Your task to perform on an android device: What is the average speed of a car? Image 0: 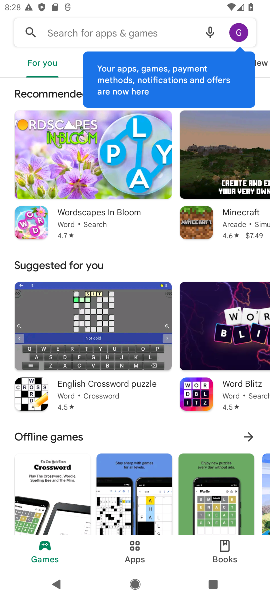
Step 0: press home button
Your task to perform on an android device: What is the average speed of a car? Image 1: 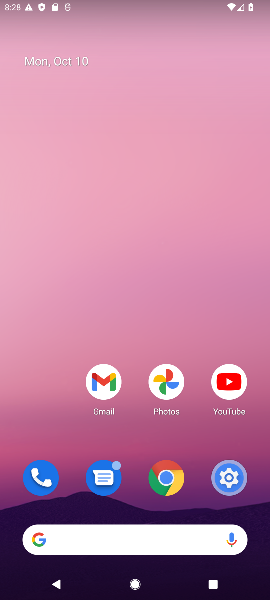
Step 1: click (156, 479)
Your task to perform on an android device: What is the average speed of a car? Image 2: 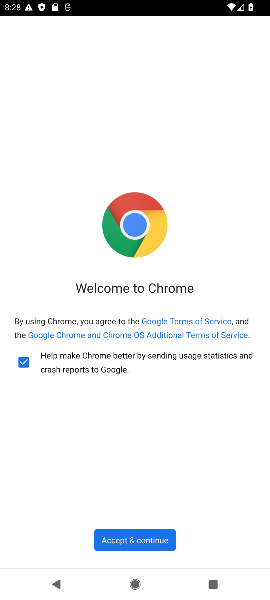
Step 2: click (134, 540)
Your task to perform on an android device: What is the average speed of a car? Image 3: 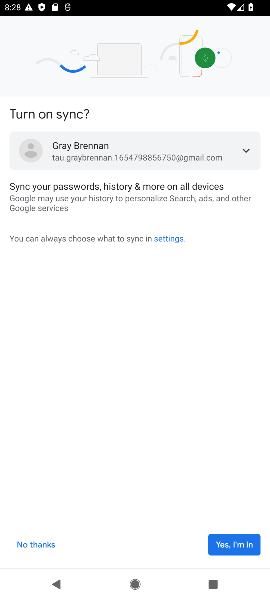
Step 3: click (246, 545)
Your task to perform on an android device: What is the average speed of a car? Image 4: 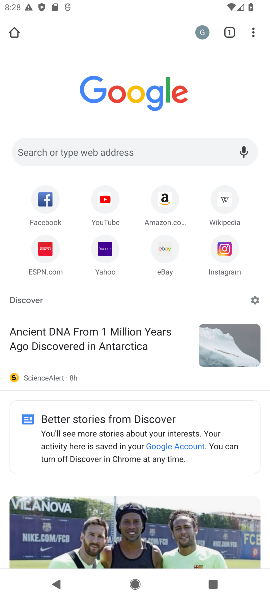
Step 4: click (114, 149)
Your task to perform on an android device: What is the average speed of a car? Image 5: 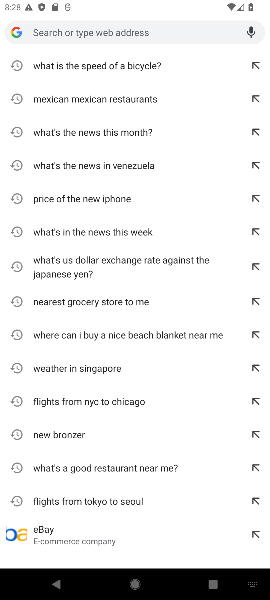
Step 5: type "What is the average speed of a car?"
Your task to perform on an android device: What is the average speed of a car? Image 6: 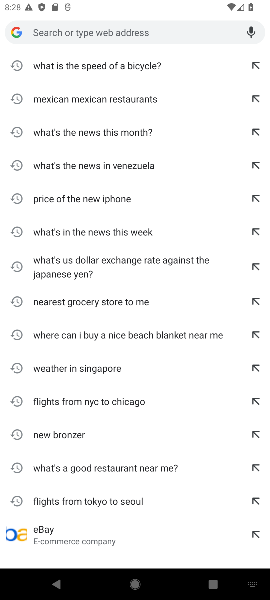
Step 6: click (200, 26)
Your task to perform on an android device: What is the average speed of a car? Image 7: 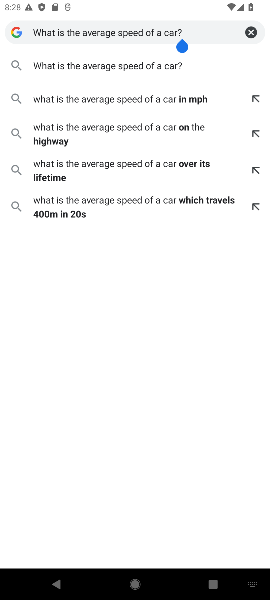
Step 7: click (164, 64)
Your task to perform on an android device: What is the average speed of a car? Image 8: 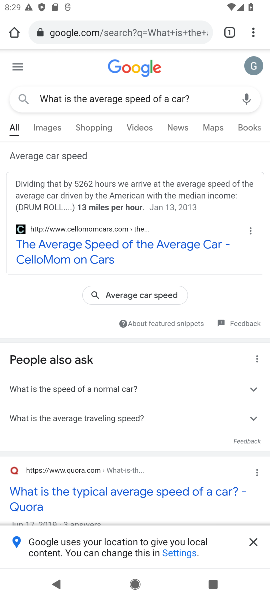
Step 8: task complete